Your task to perform on an android device: turn on the 12-hour format for clock Image 0: 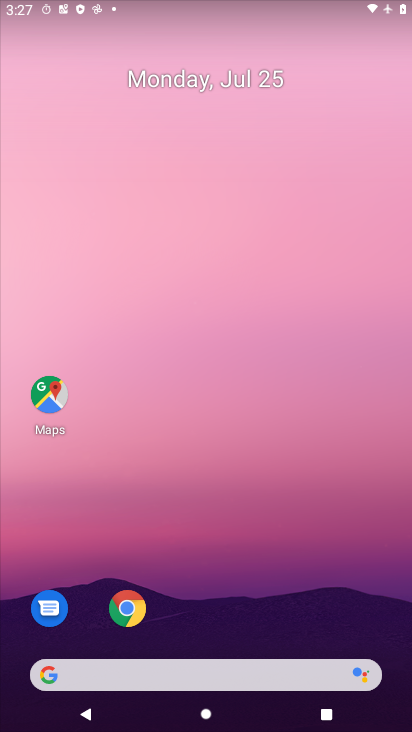
Step 0: drag from (275, 557) to (307, 195)
Your task to perform on an android device: turn on the 12-hour format for clock Image 1: 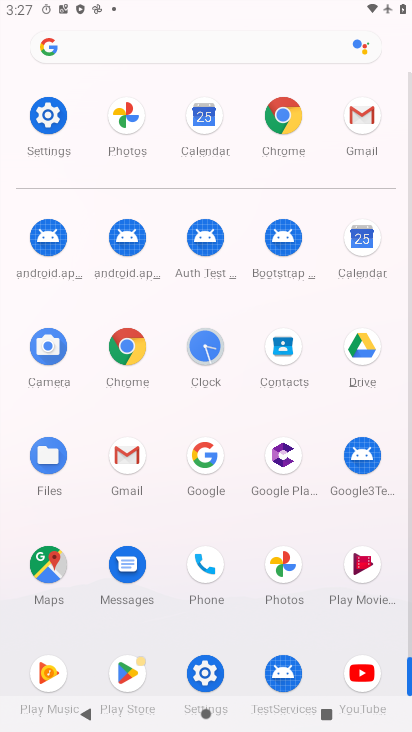
Step 1: click (213, 345)
Your task to perform on an android device: turn on the 12-hour format for clock Image 2: 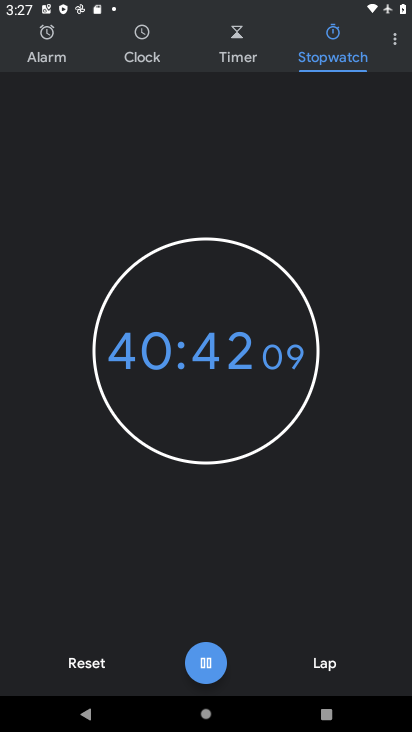
Step 2: click (398, 47)
Your task to perform on an android device: turn on the 12-hour format for clock Image 3: 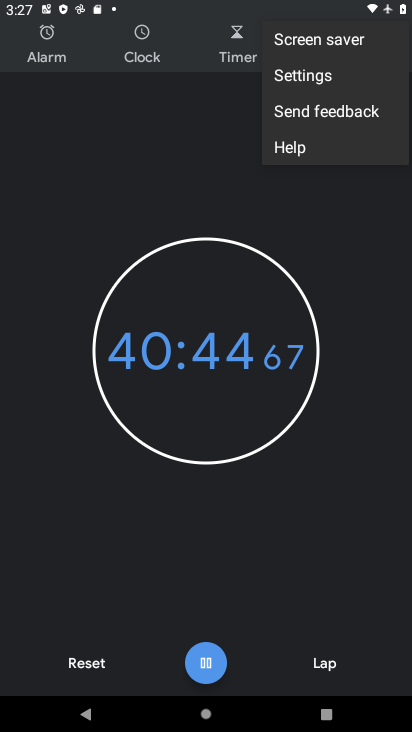
Step 3: click (317, 78)
Your task to perform on an android device: turn on the 12-hour format for clock Image 4: 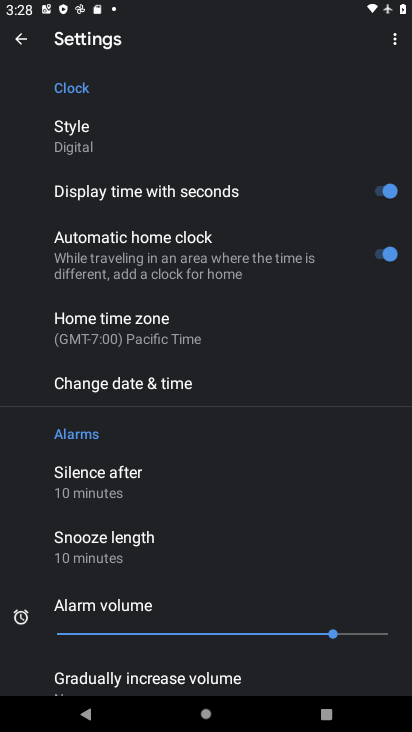
Step 4: click (214, 390)
Your task to perform on an android device: turn on the 12-hour format for clock Image 5: 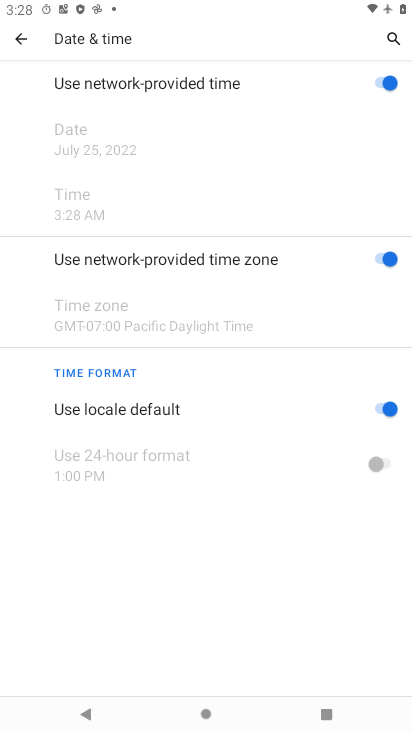
Step 5: task complete